Your task to perform on an android device: What is the recent news? Image 0: 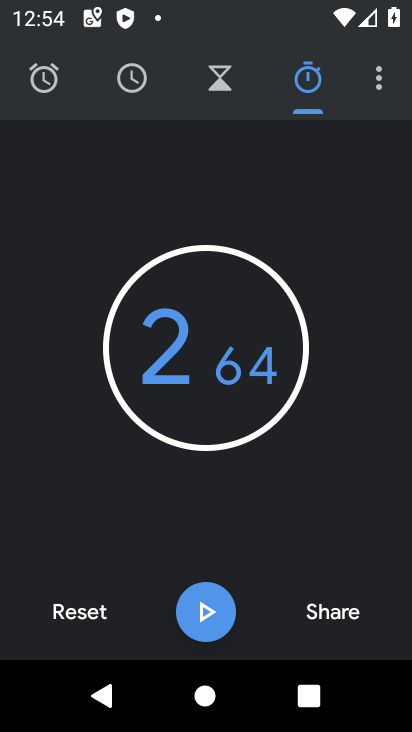
Step 0: press back button
Your task to perform on an android device: What is the recent news? Image 1: 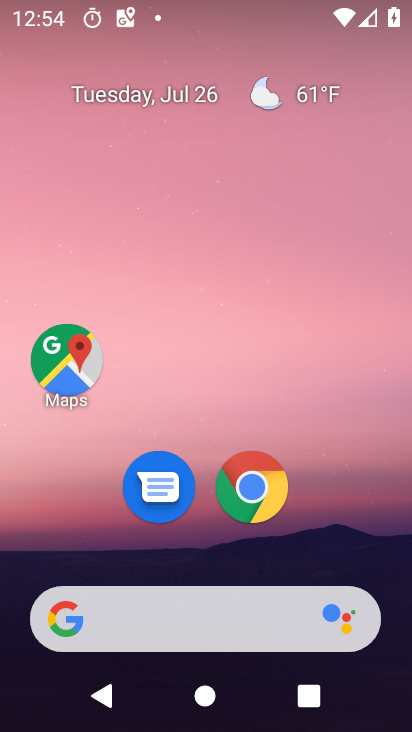
Step 1: click (128, 620)
Your task to perform on an android device: What is the recent news? Image 2: 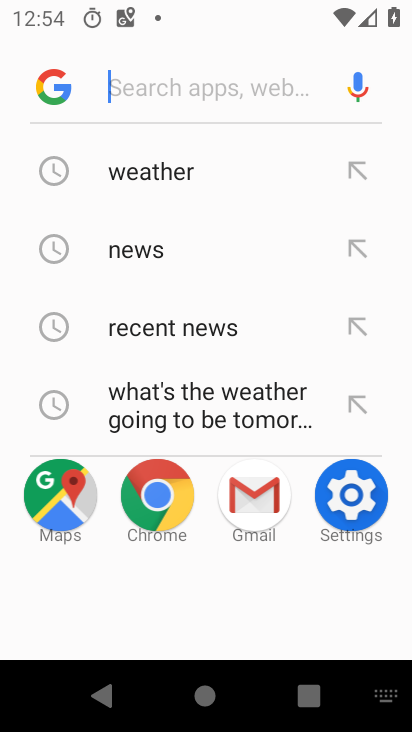
Step 2: click (208, 338)
Your task to perform on an android device: What is the recent news? Image 3: 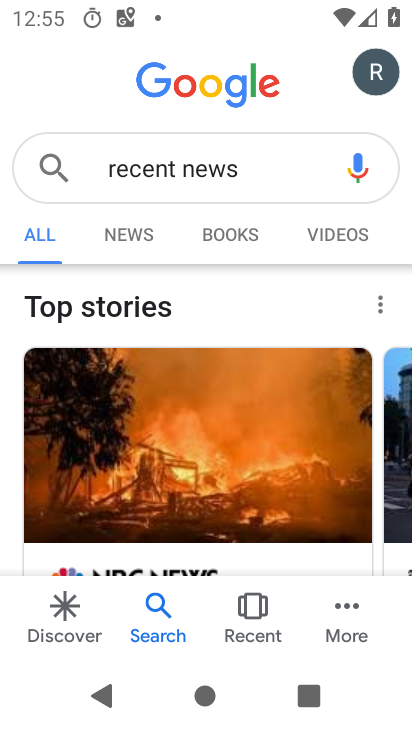
Step 3: task complete